Your task to perform on an android device: open the mobile data screen to see how much data has been used Image 0: 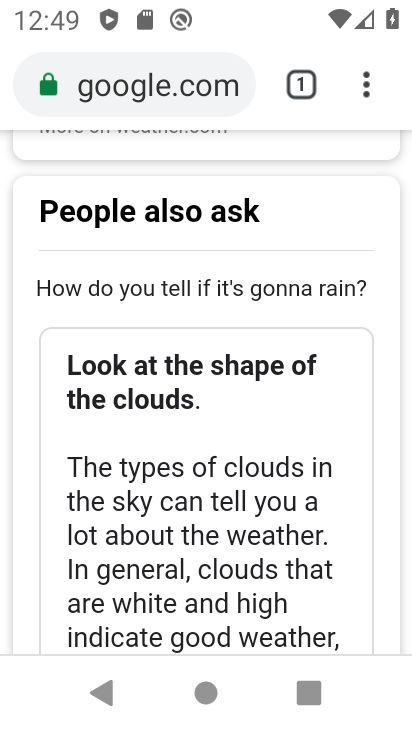
Step 0: press home button
Your task to perform on an android device: open the mobile data screen to see how much data has been used Image 1: 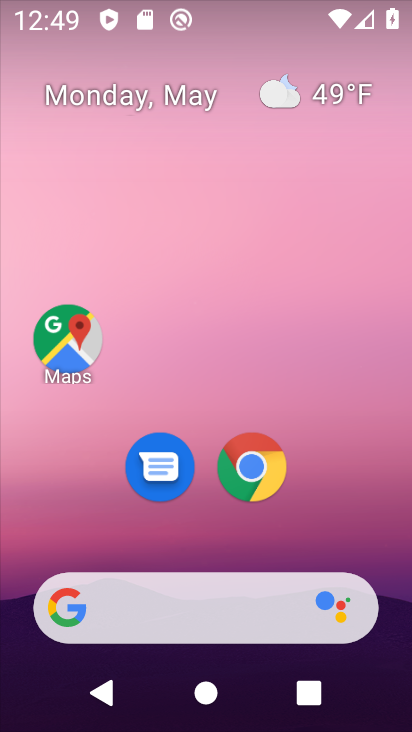
Step 1: drag from (356, 510) to (310, 164)
Your task to perform on an android device: open the mobile data screen to see how much data has been used Image 2: 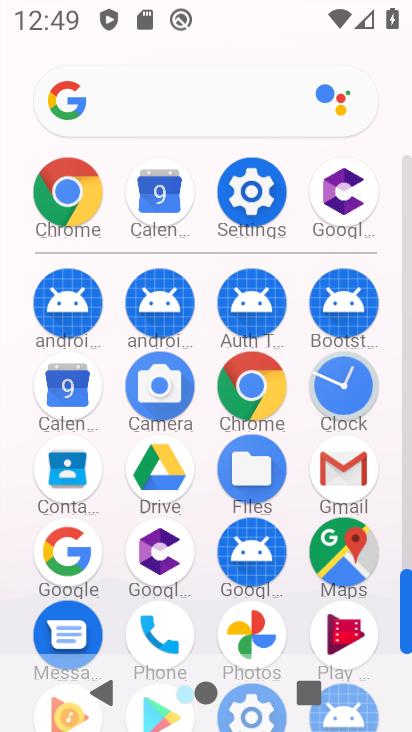
Step 2: click (250, 198)
Your task to perform on an android device: open the mobile data screen to see how much data has been used Image 3: 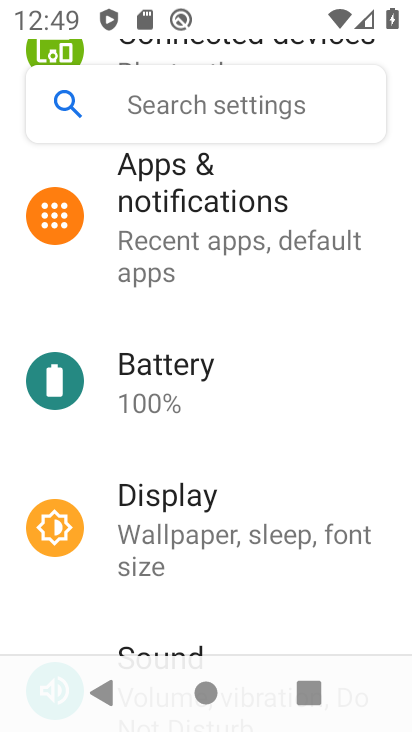
Step 3: drag from (255, 192) to (338, 576)
Your task to perform on an android device: open the mobile data screen to see how much data has been used Image 4: 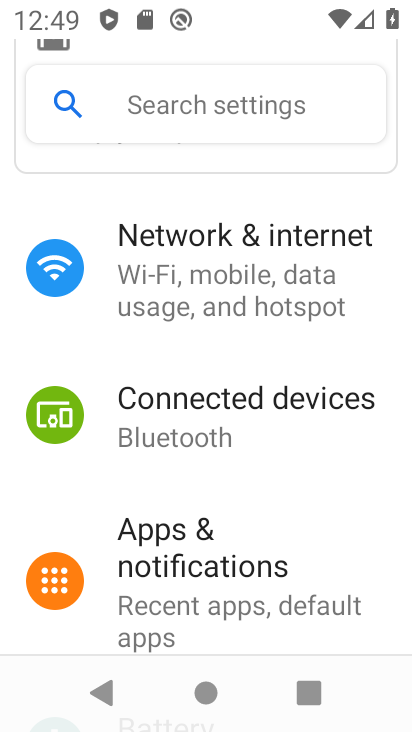
Step 4: click (269, 248)
Your task to perform on an android device: open the mobile data screen to see how much data has been used Image 5: 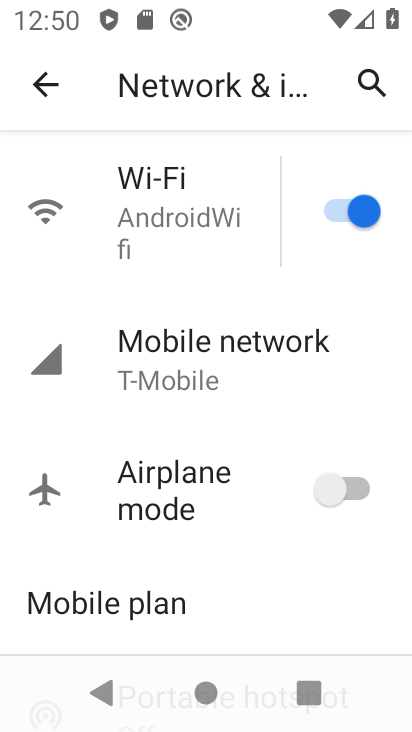
Step 5: drag from (252, 585) to (236, 254)
Your task to perform on an android device: open the mobile data screen to see how much data has been used Image 6: 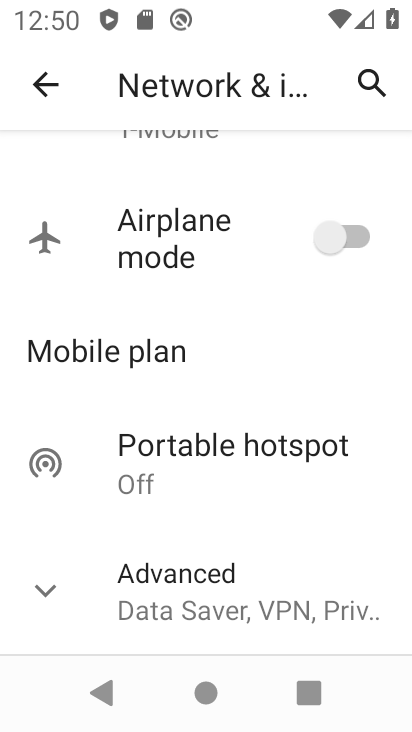
Step 6: click (220, 149)
Your task to perform on an android device: open the mobile data screen to see how much data has been used Image 7: 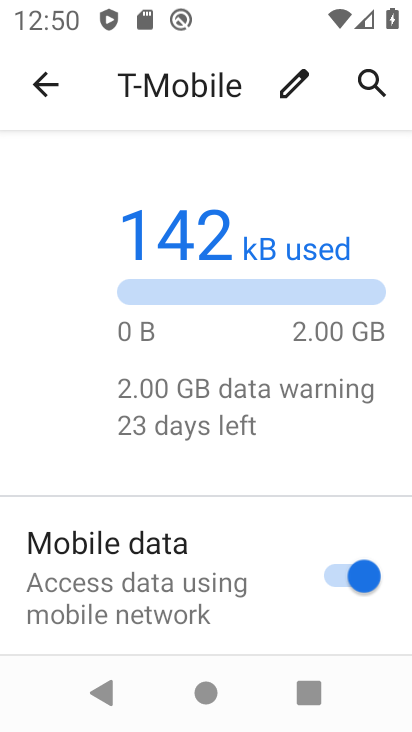
Step 7: drag from (247, 560) to (259, 196)
Your task to perform on an android device: open the mobile data screen to see how much data has been used Image 8: 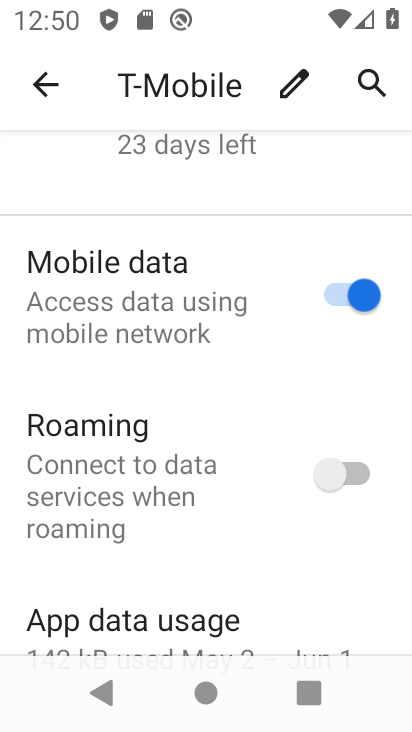
Step 8: drag from (230, 509) to (237, 245)
Your task to perform on an android device: open the mobile data screen to see how much data has been used Image 9: 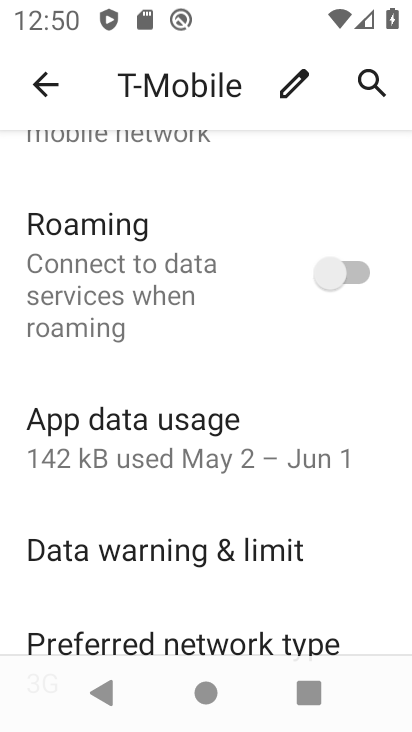
Step 9: drag from (202, 215) to (281, 562)
Your task to perform on an android device: open the mobile data screen to see how much data has been used Image 10: 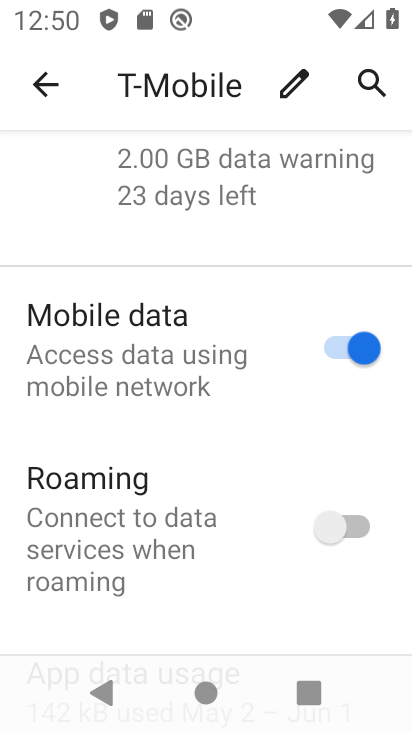
Step 10: drag from (201, 222) to (250, 584)
Your task to perform on an android device: open the mobile data screen to see how much data has been used Image 11: 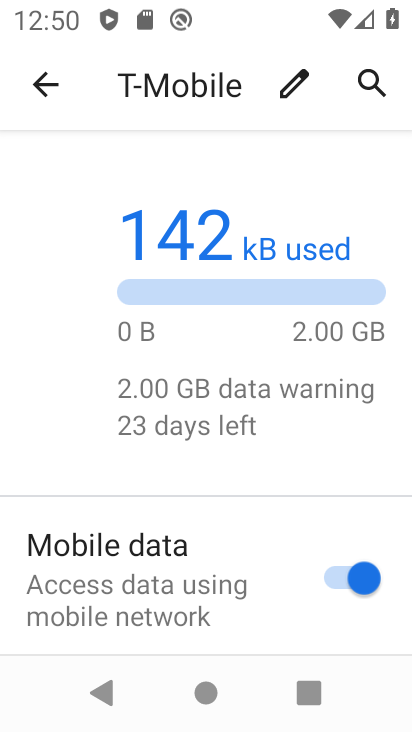
Step 11: click (224, 428)
Your task to perform on an android device: open the mobile data screen to see how much data has been used Image 12: 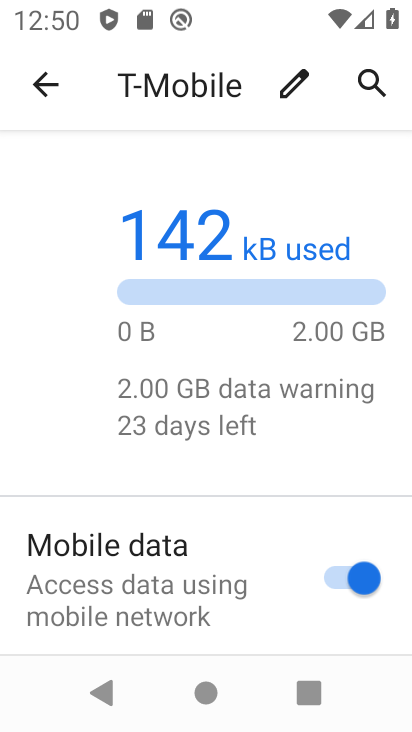
Step 12: click (235, 246)
Your task to perform on an android device: open the mobile data screen to see how much data has been used Image 13: 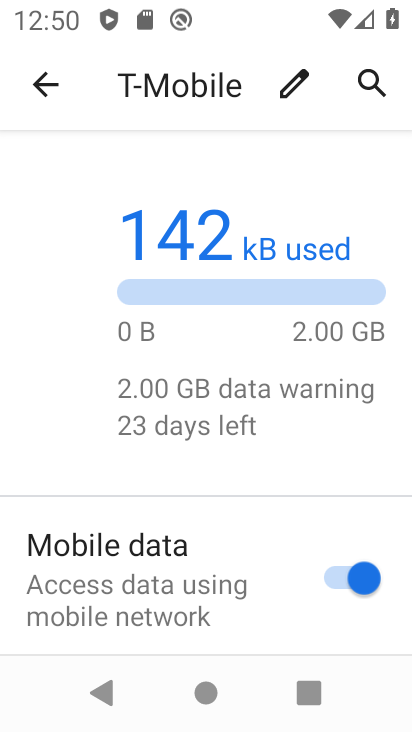
Step 13: task complete